Your task to perform on an android device: Go to network settings Image 0: 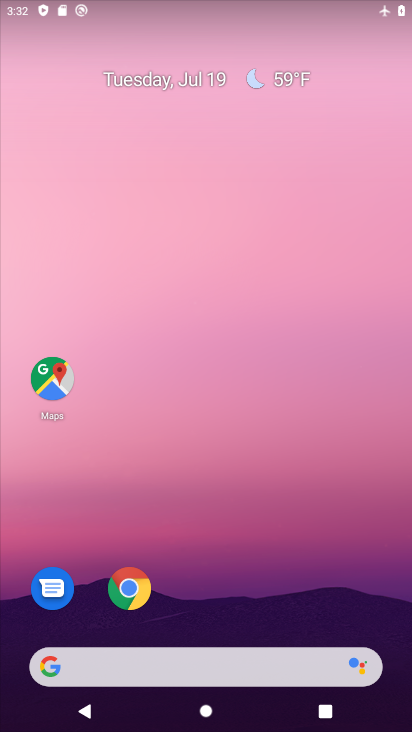
Step 0: press home button
Your task to perform on an android device: Go to network settings Image 1: 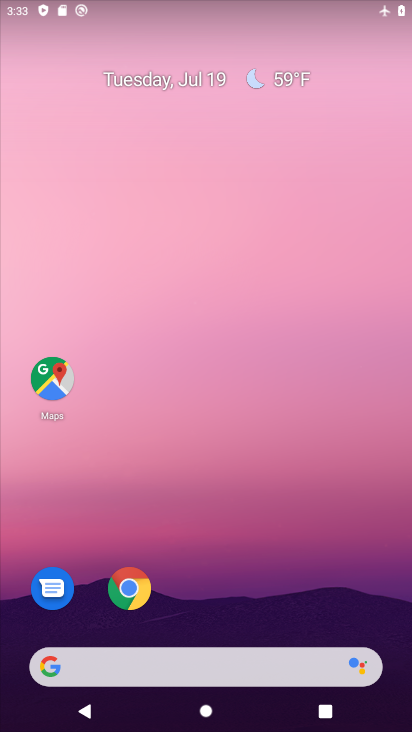
Step 1: drag from (264, 494) to (276, 135)
Your task to perform on an android device: Go to network settings Image 2: 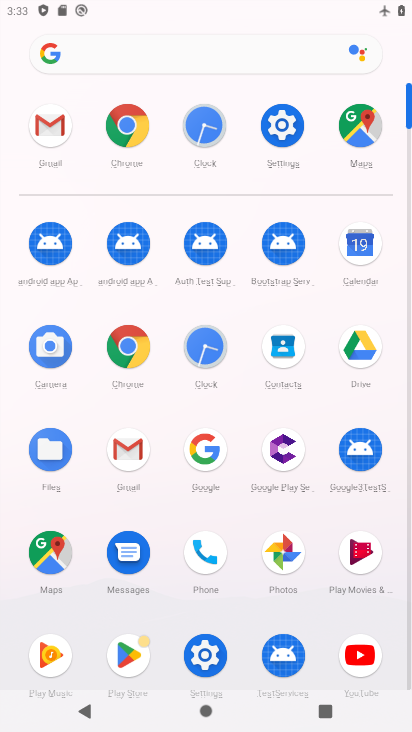
Step 2: click (282, 137)
Your task to perform on an android device: Go to network settings Image 3: 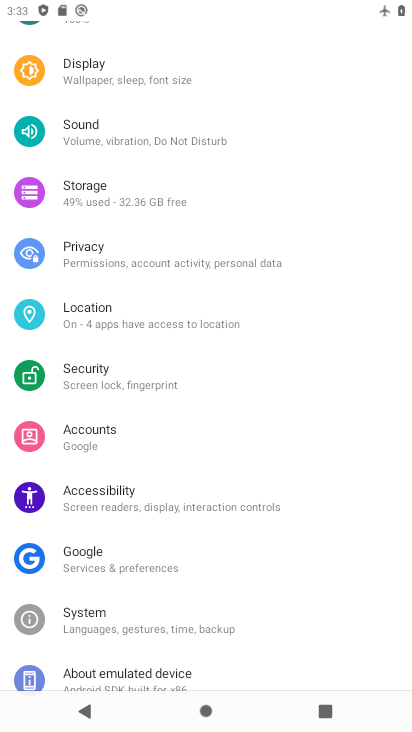
Step 3: drag from (275, 124) to (317, 544)
Your task to perform on an android device: Go to network settings Image 4: 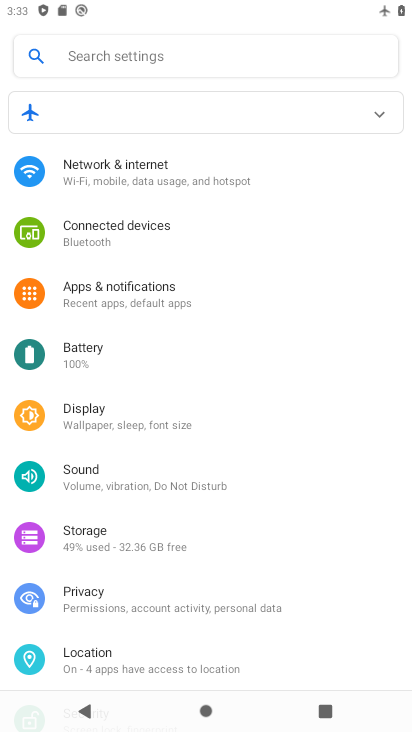
Step 4: click (94, 183)
Your task to perform on an android device: Go to network settings Image 5: 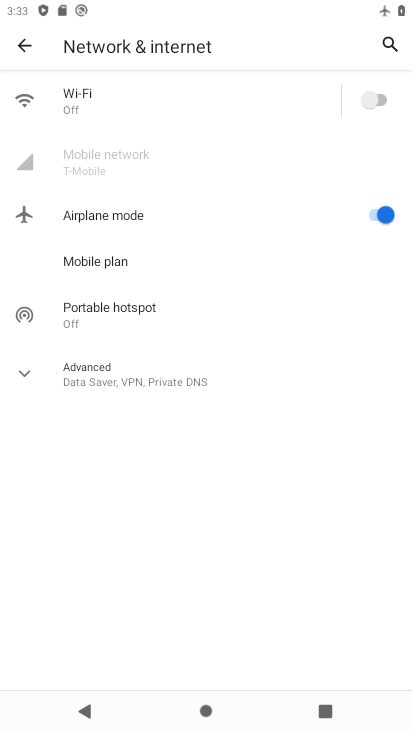
Step 5: task complete